Your task to perform on an android device: Open Maps and search for coffee Image 0: 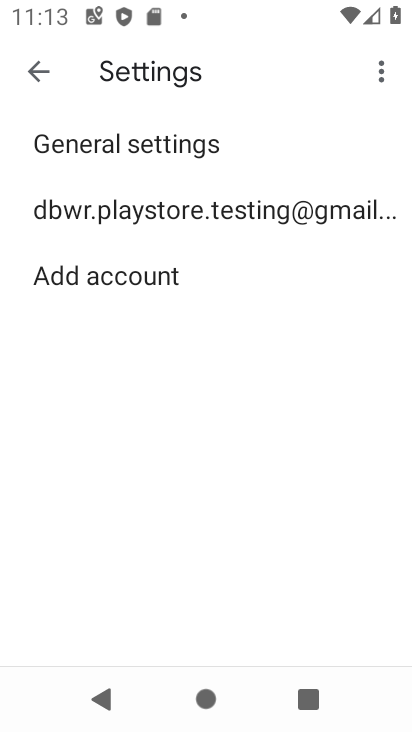
Step 0: press home button
Your task to perform on an android device: Open Maps and search for coffee Image 1: 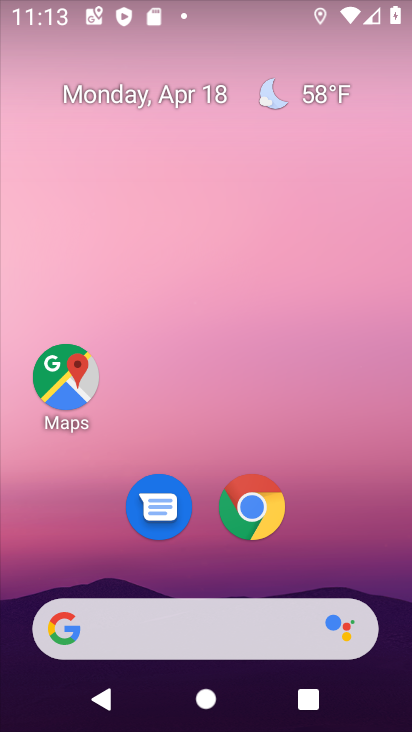
Step 1: click (64, 381)
Your task to perform on an android device: Open Maps and search for coffee Image 2: 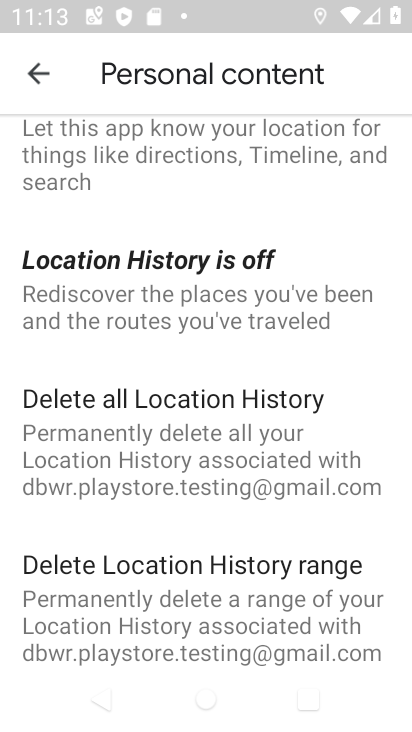
Step 2: click (33, 74)
Your task to perform on an android device: Open Maps and search for coffee Image 3: 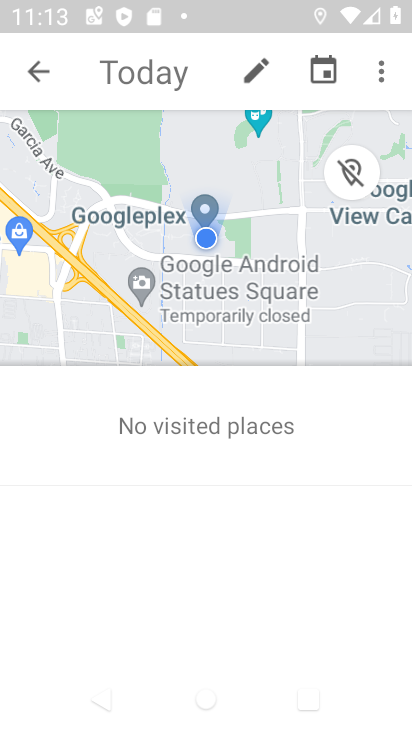
Step 3: click (41, 73)
Your task to perform on an android device: Open Maps and search for coffee Image 4: 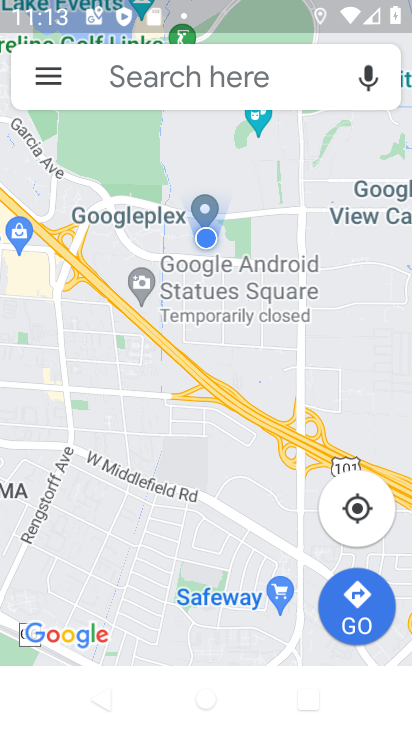
Step 4: click (149, 77)
Your task to perform on an android device: Open Maps and search for coffee Image 5: 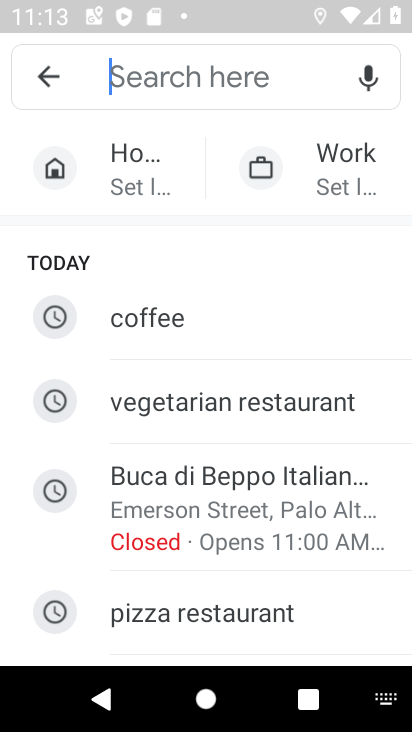
Step 5: type "coffee"
Your task to perform on an android device: Open Maps and search for coffee Image 6: 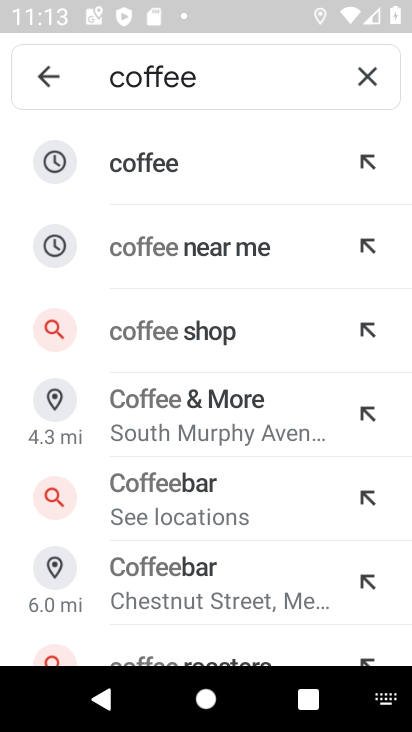
Step 6: click (165, 184)
Your task to perform on an android device: Open Maps and search for coffee Image 7: 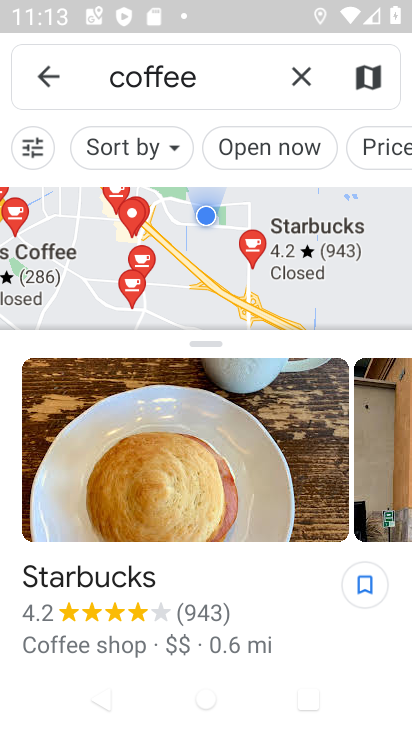
Step 7: task complete